Your task to perform on an android device: Go to privacy settings Image 0: 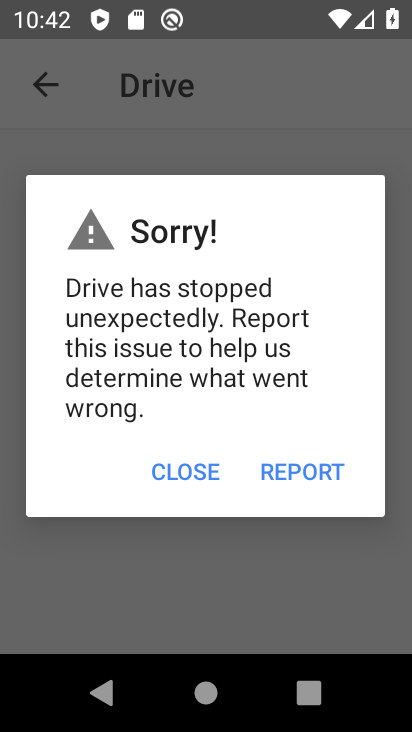
Step 0: drag from (396, 675) to (406, 420)
Your task to perform on an android device: Go to privacy settings Image 1: 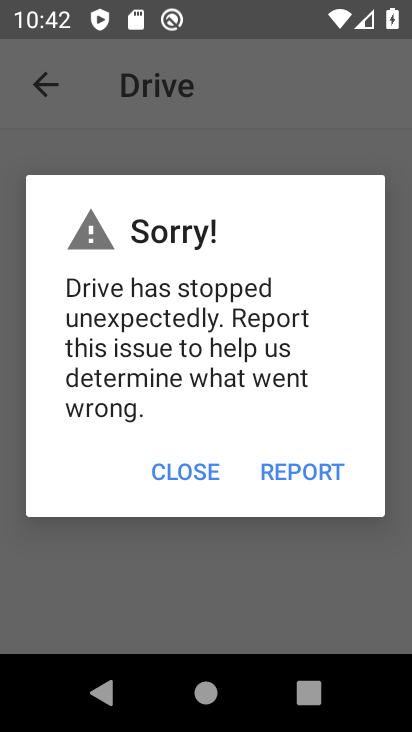
Step 1: press home button
Your task to perform on an android device: Go to privacy settings Image 2: 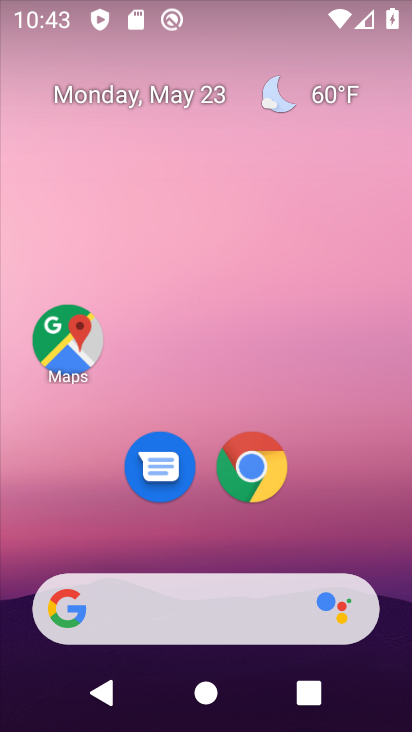
Step 2: drag from (162, 615) to (294, 5)
Your task to perform on an android device: Go to privacy settings Image 3: 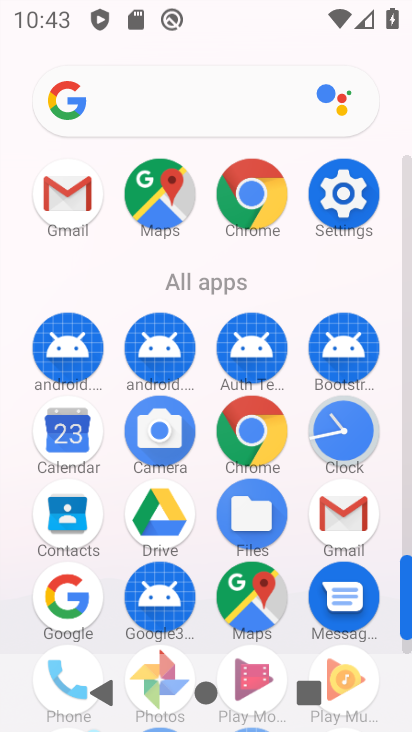
Step 3: click (342, 192)
Your task to perform on an android device: Go to privacy settings Image 4: 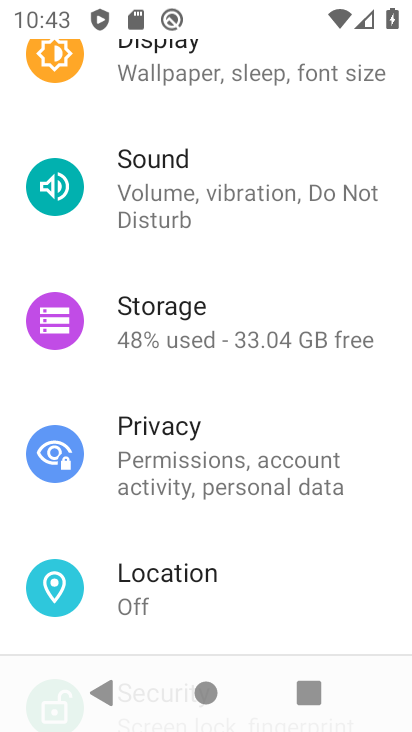
Step 4: click (141, 444)
Your task to perform on an android device: Go to privacy settings Image 5: 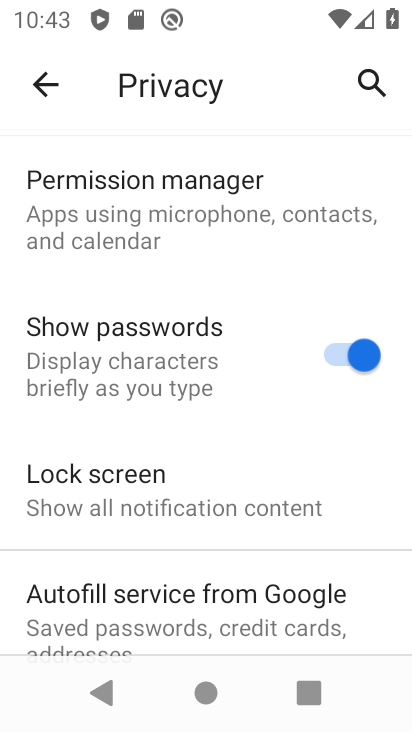
Step 5: task complete